Your task to perform on an android device: Find coffee shops on Maps Image 0: 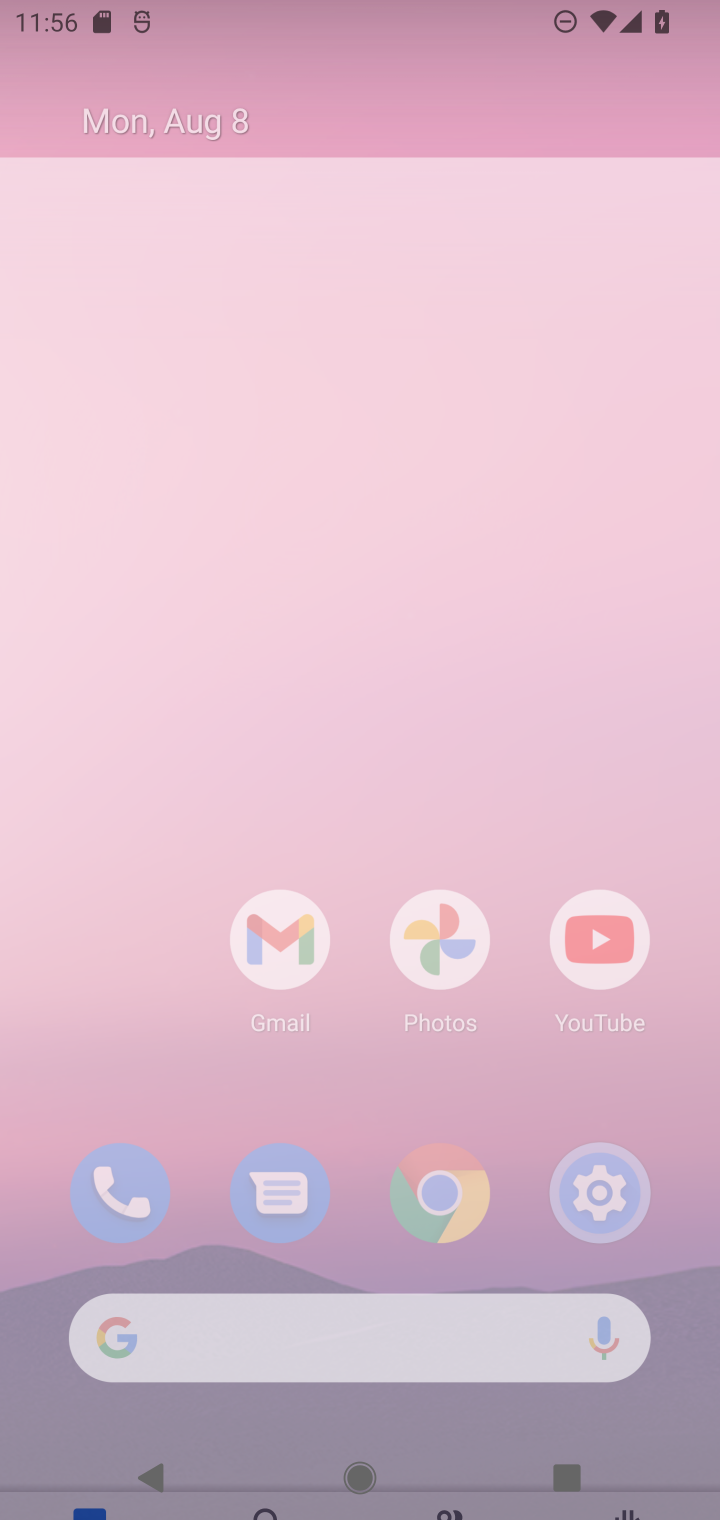
Step 0: press home button
Your task to perform on an android device: Find coffee shops on Maps Image 1: 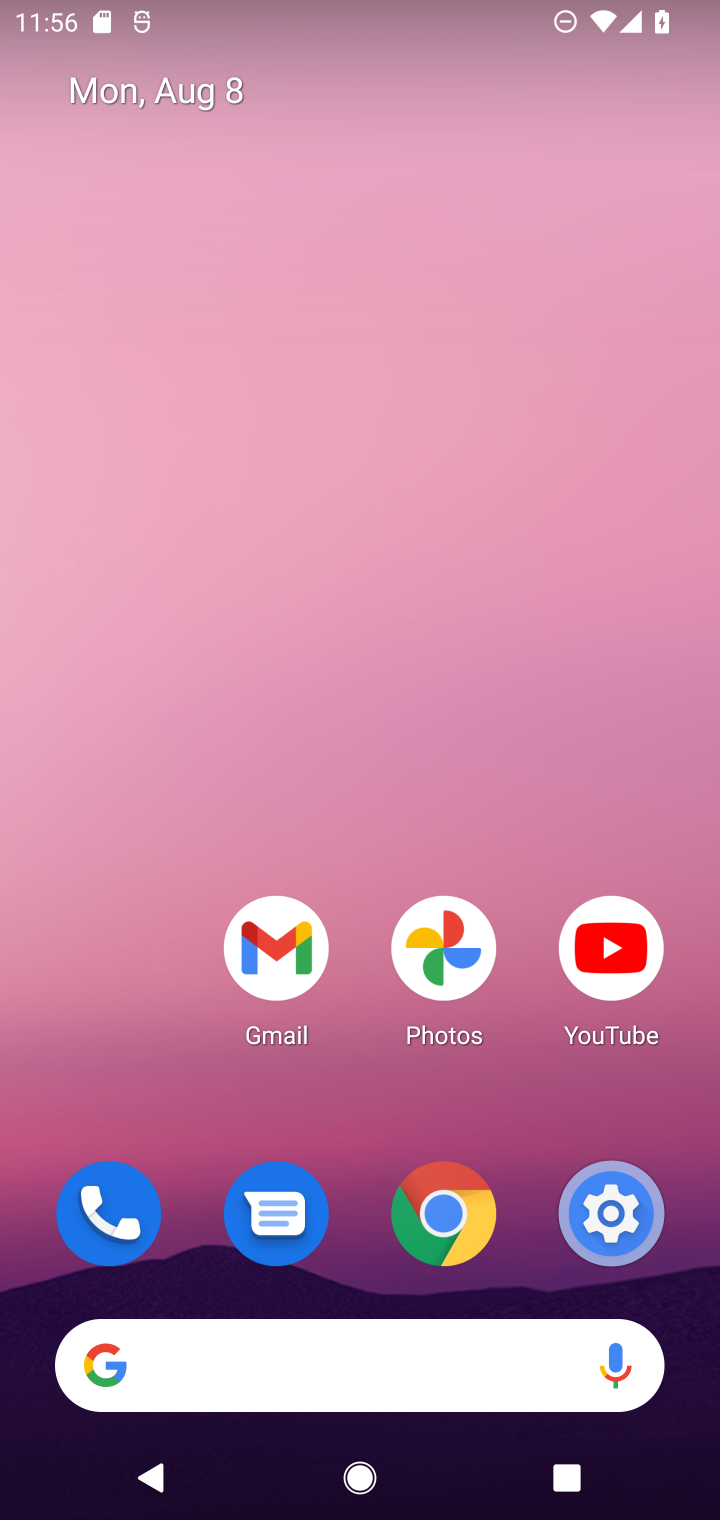
Step 1: drag from (366, 1154) to (382, 138)
Your task to perform on an android device: Find coffee shops on Maps Image 2: 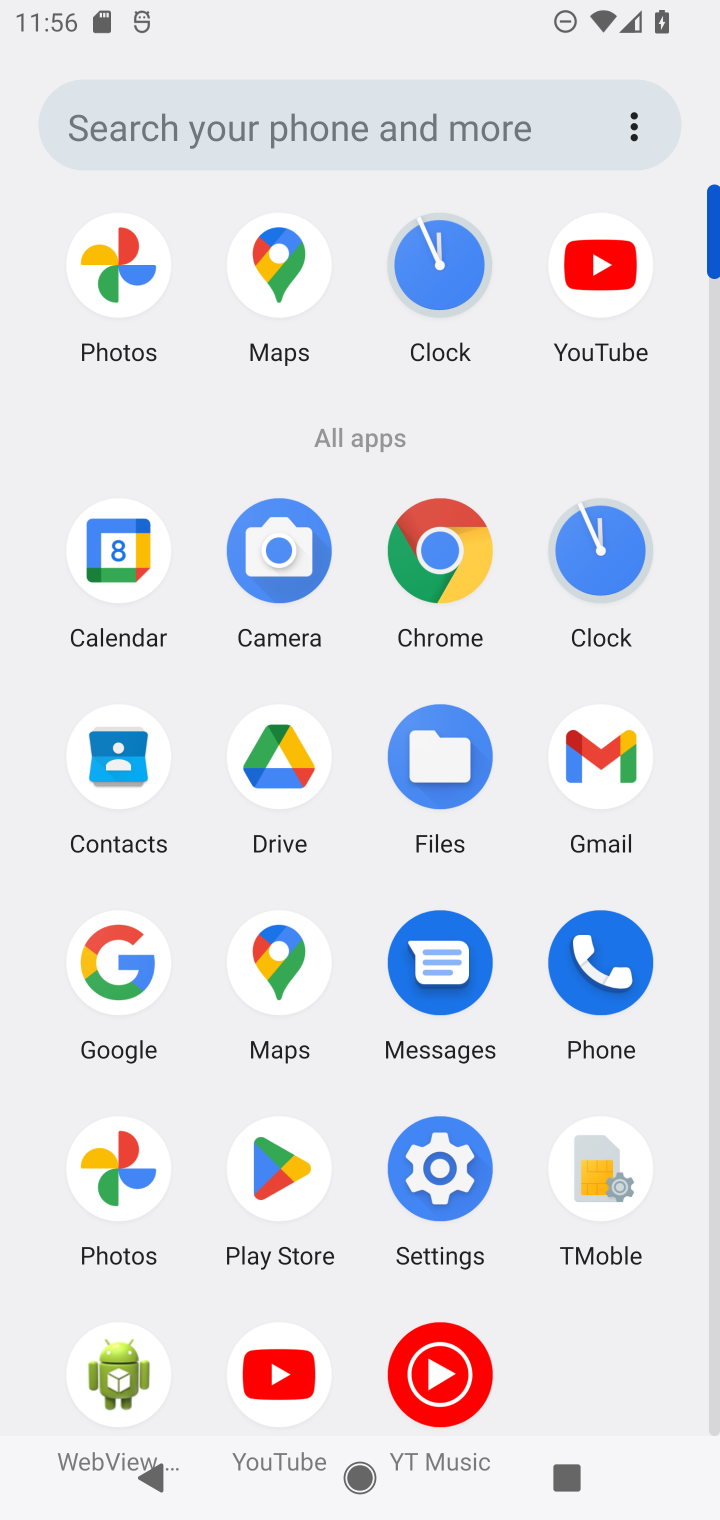
Step 2: click (278, 934)
Your task to perform on an android device: Find coffee shops on Maps Image 3: 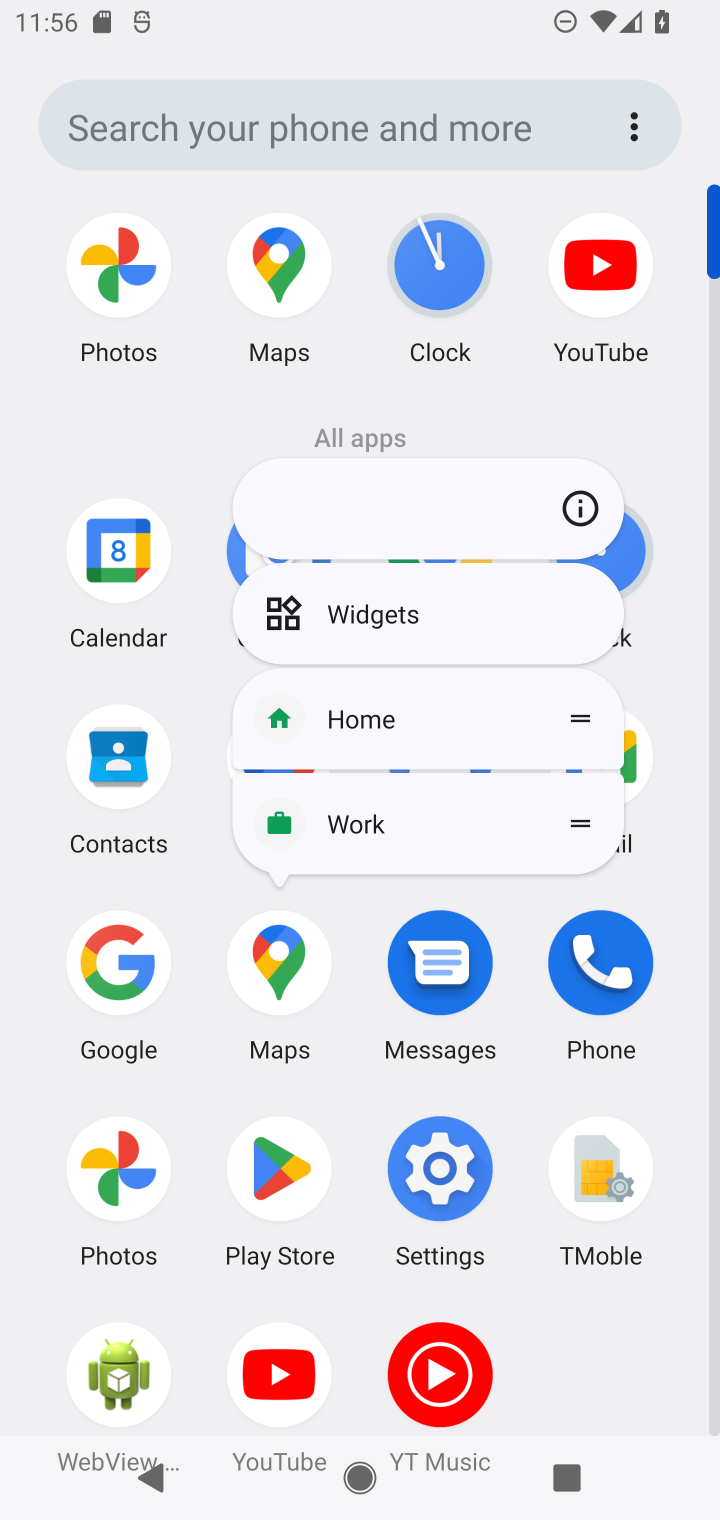
Step 3: click (276, 940)
Your task to perform on an android device: Find coffee shops on Maps Image 4: 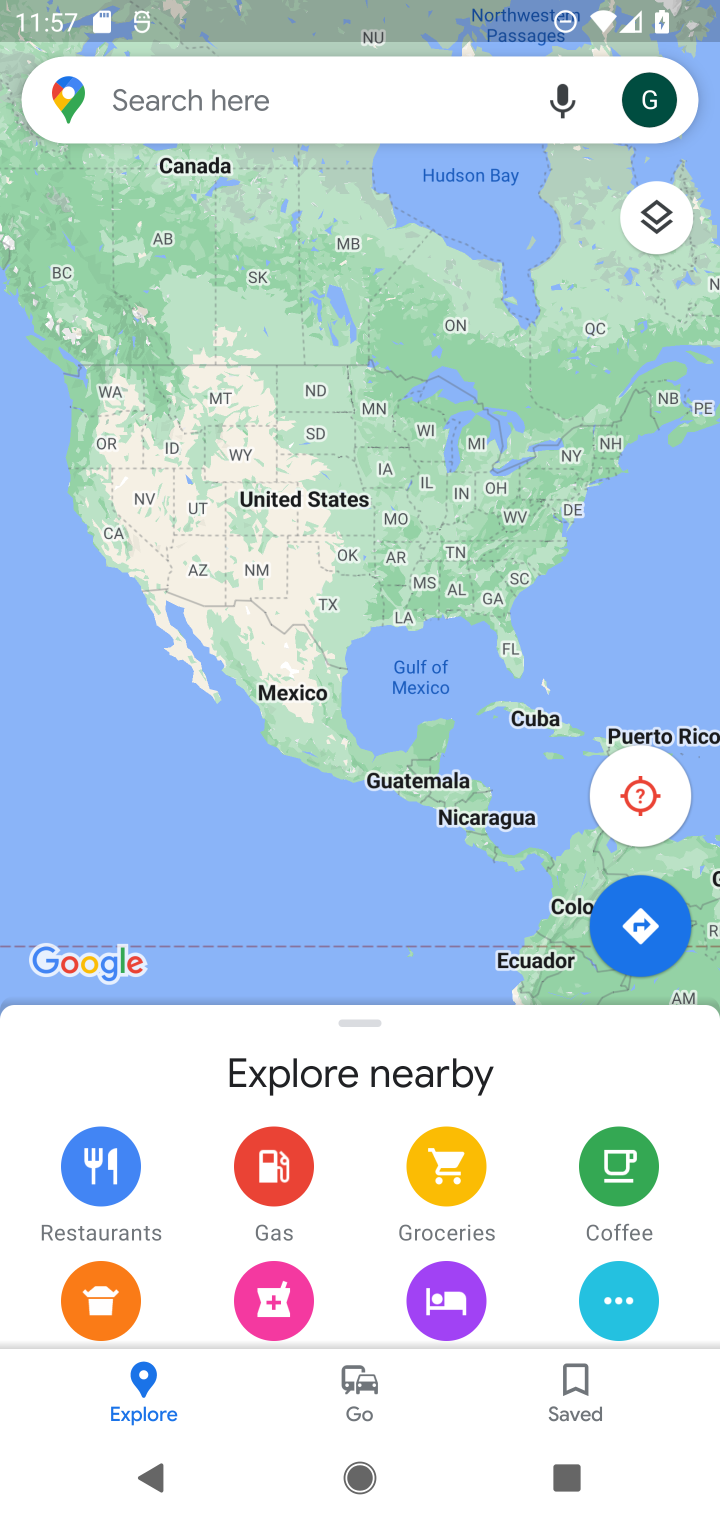
Step 4: click (204, 103)
Your task to perform on an android device: Find coffee shops on Maps Image 5: 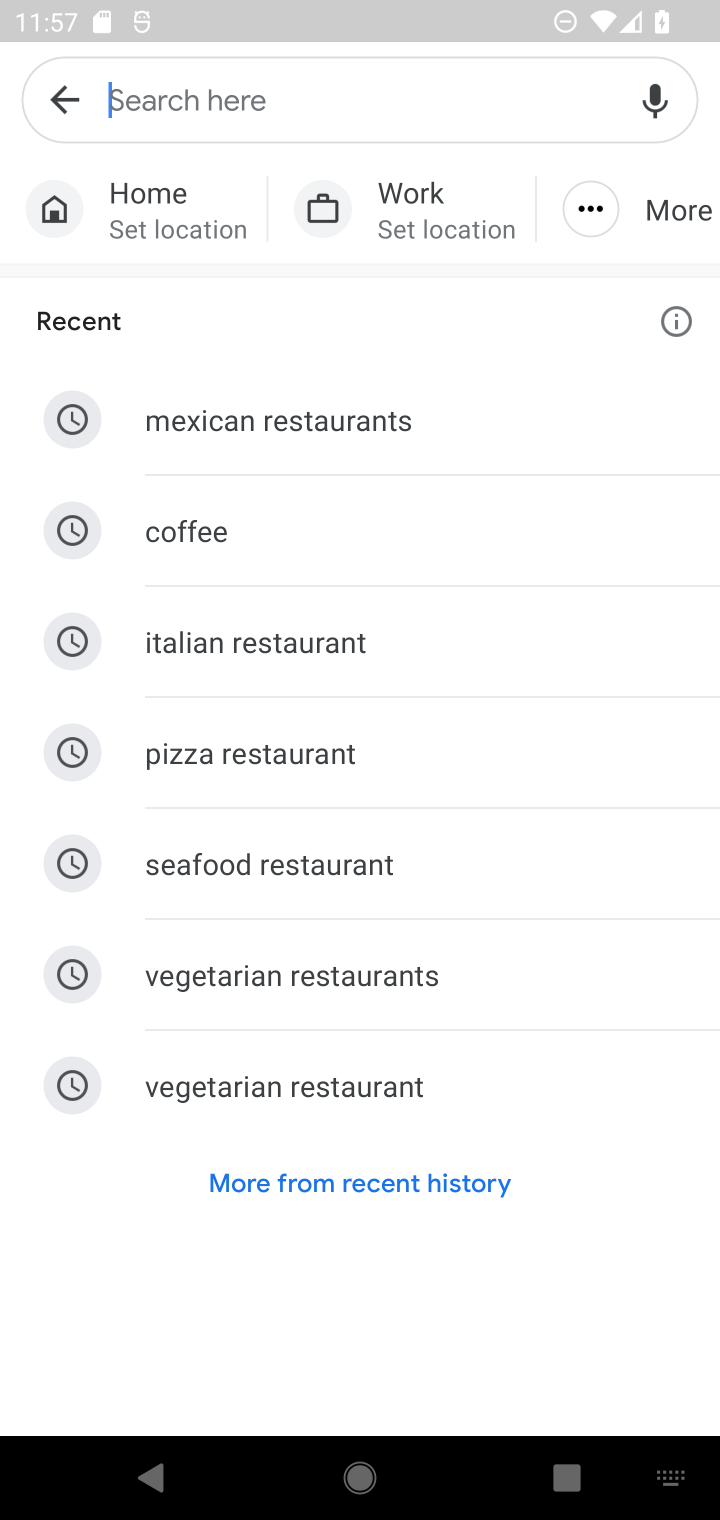
Step 5: click (217, 523)
Your task to perform on an android device: Find coffee shops on Maps Image 6: 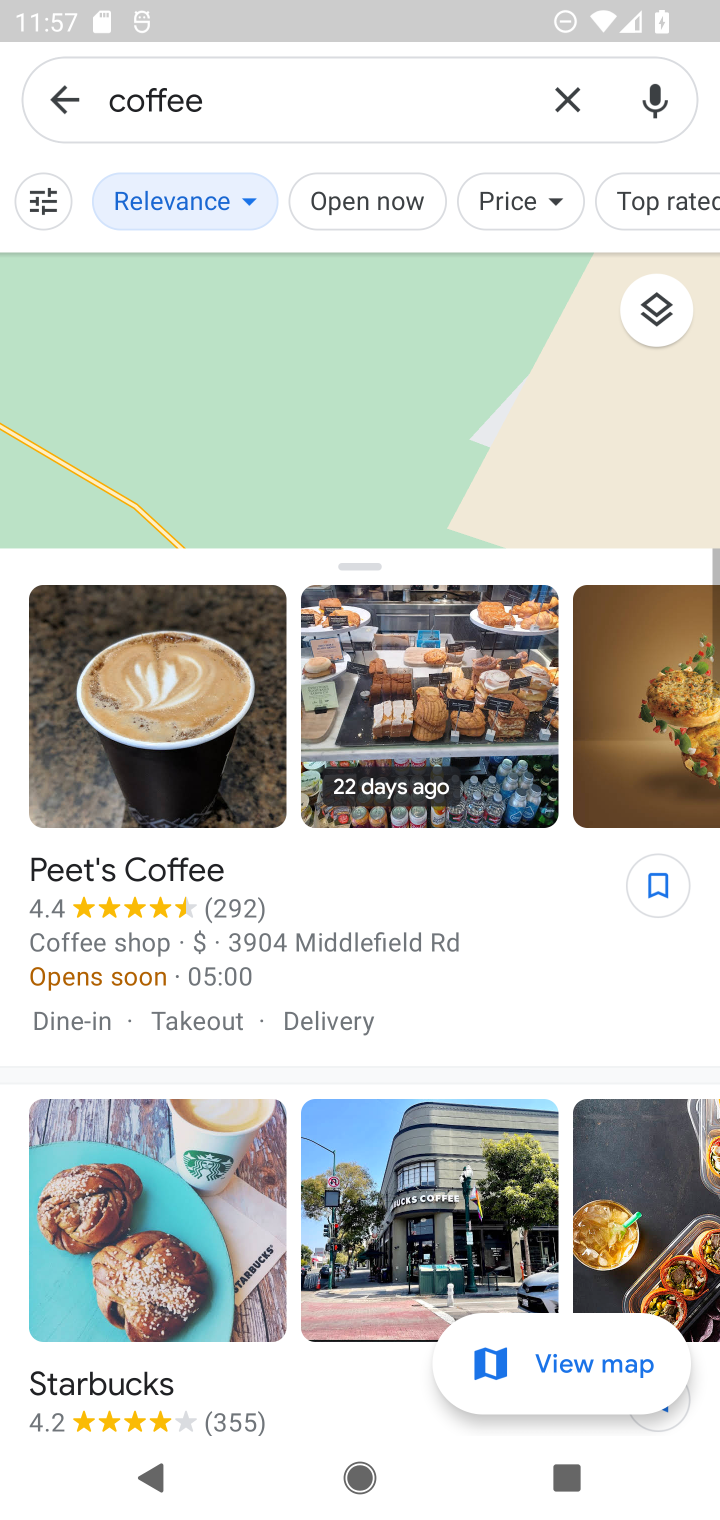
Step 6: task complete